Your task to perform on an android device: turn on sleep mode Image 0: 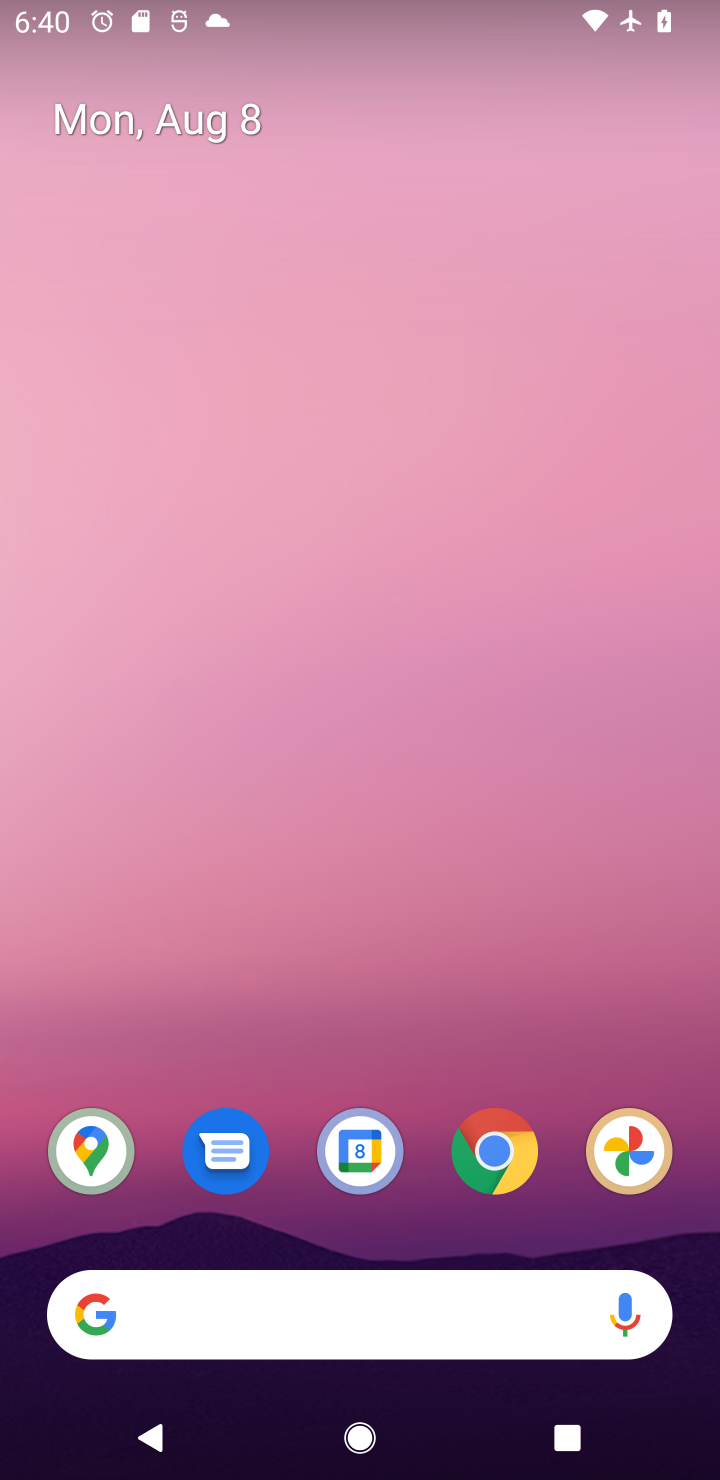
Step 0: drag from (385, 1020) to (424, 298)
Your task to perform on an android device: turn on sleep mode Image 1: 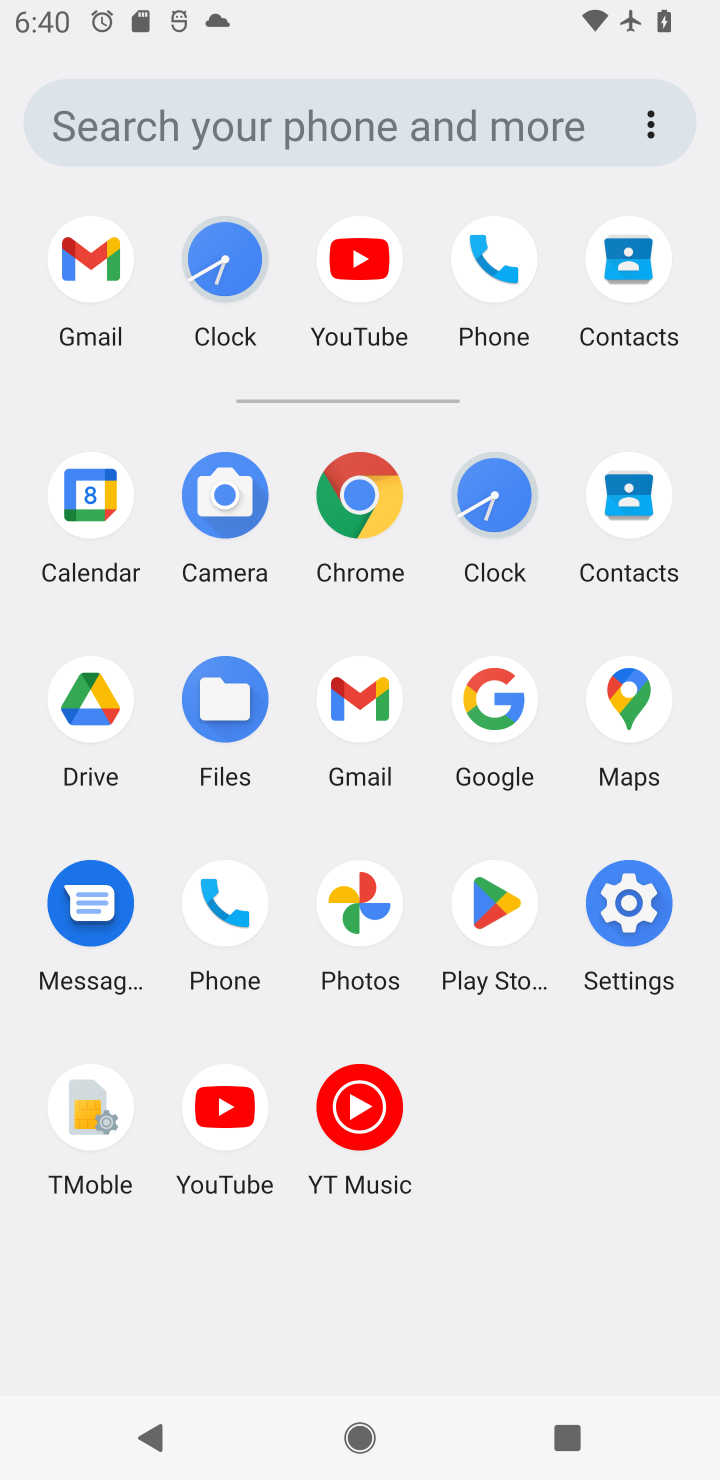
Step 1: click (609, 917)
Your task to perform on an android device: turn on sleep mode Image 2: 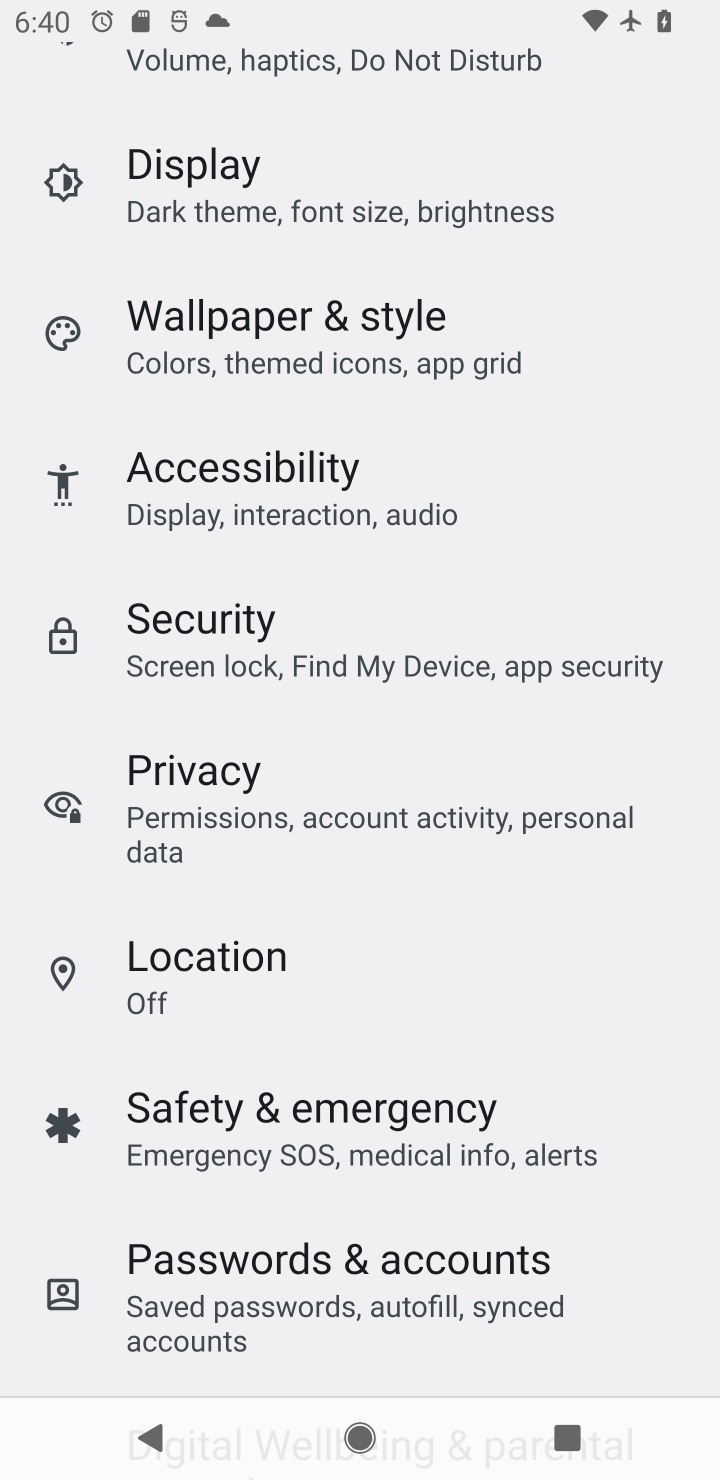
Step 2: drag from (331, 516) to (331, 1020)
Your task to perform on an android device: turn on sleep mode Image 3: 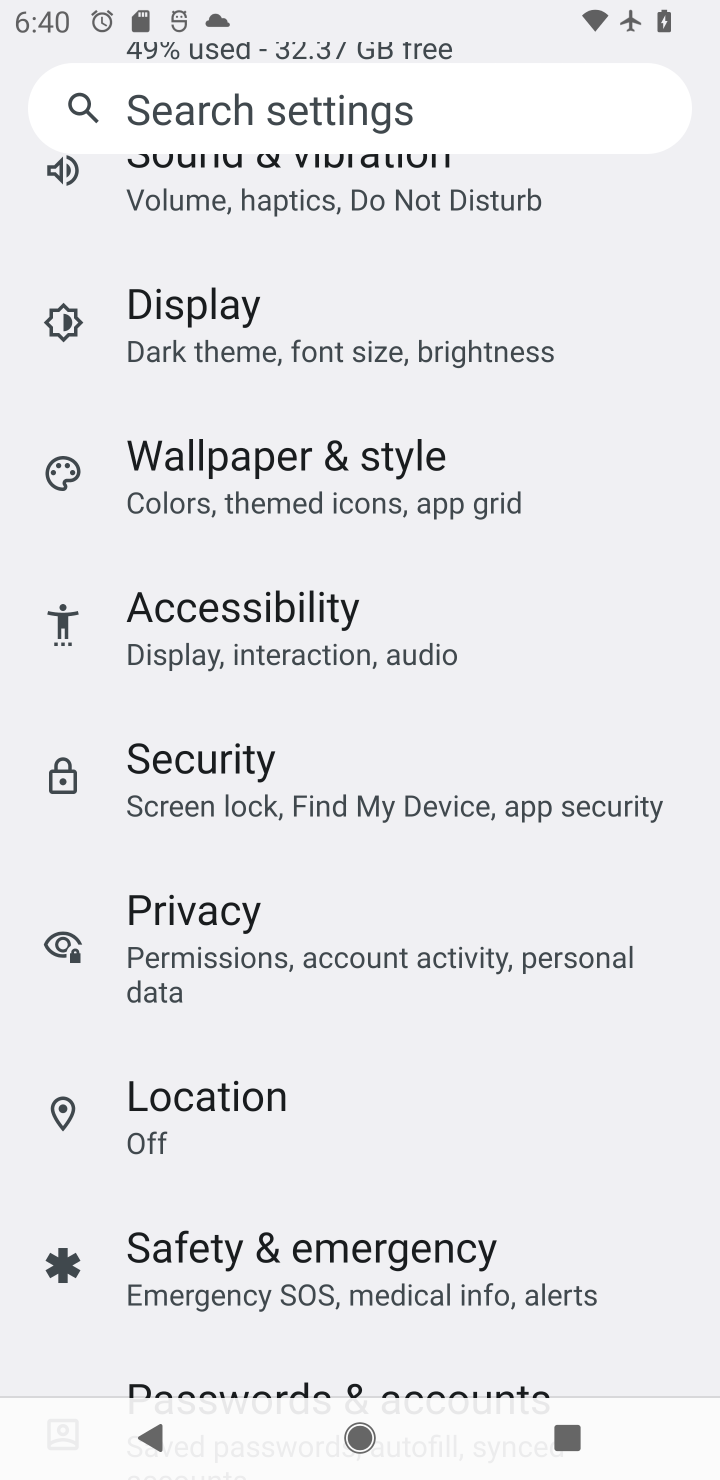
Step 3: click (269, 344)
Your task to perform on an android device: turn on sleep mode Image 4: 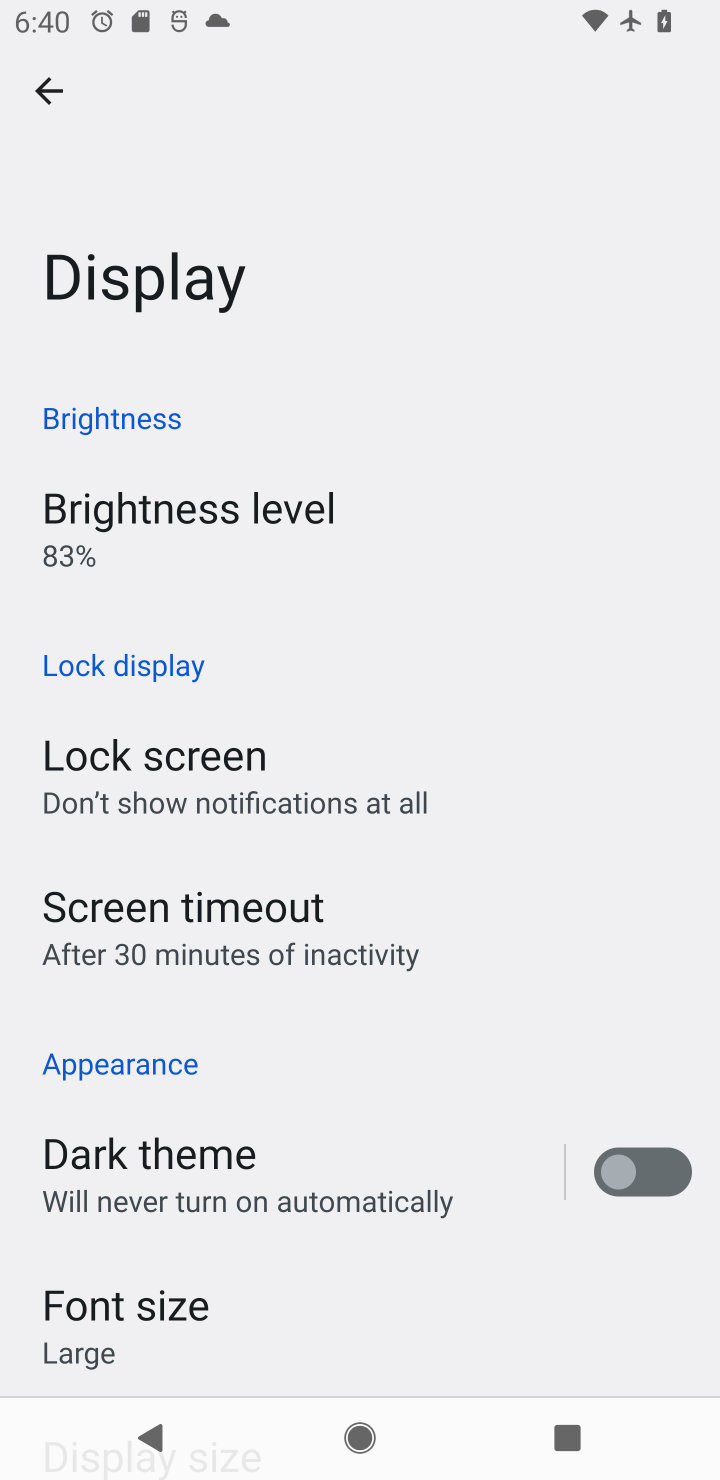
Step 4: drag from (297, 1199) to (348, 578)
Your task to perform on an android device: turn on sleep mode Image 5: 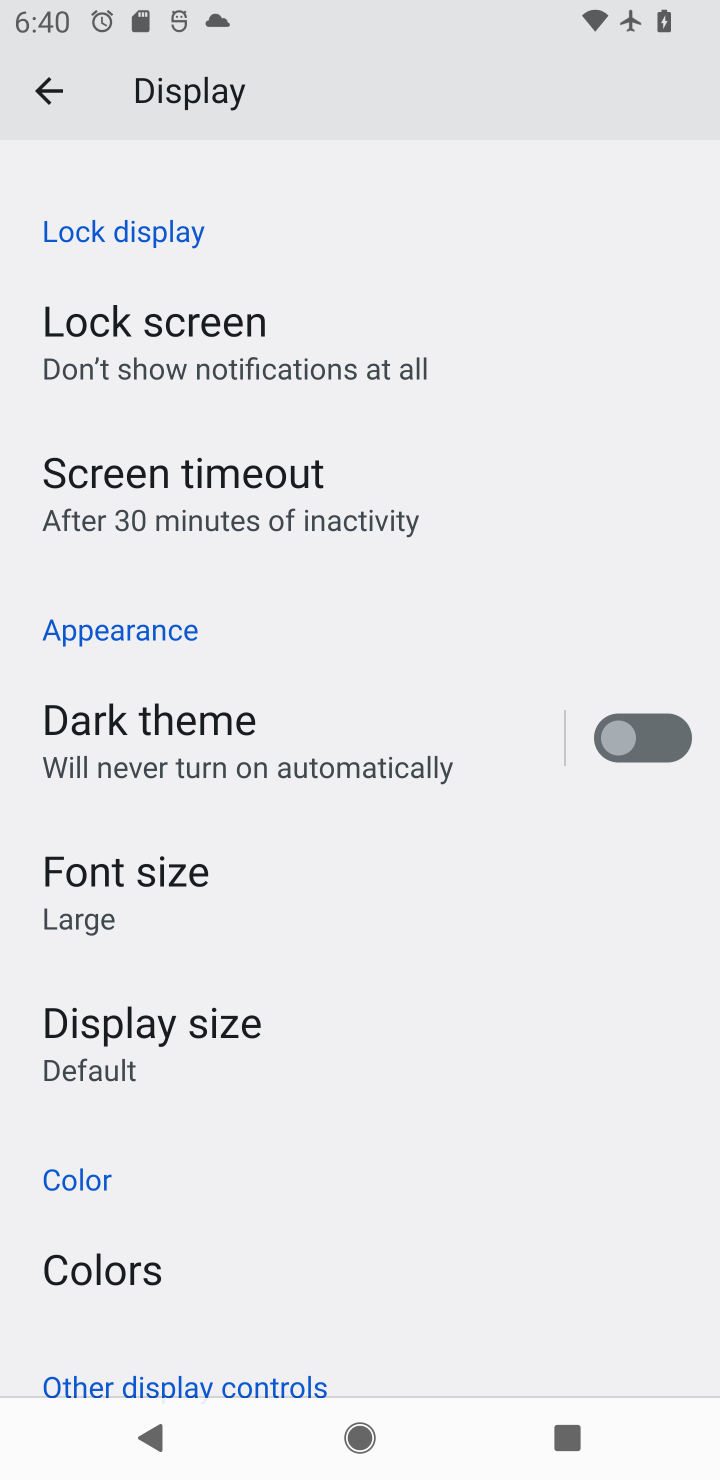
Step 5: click (235, 502)
Your task to perform on an android device: turn on sleep mode Image 6: 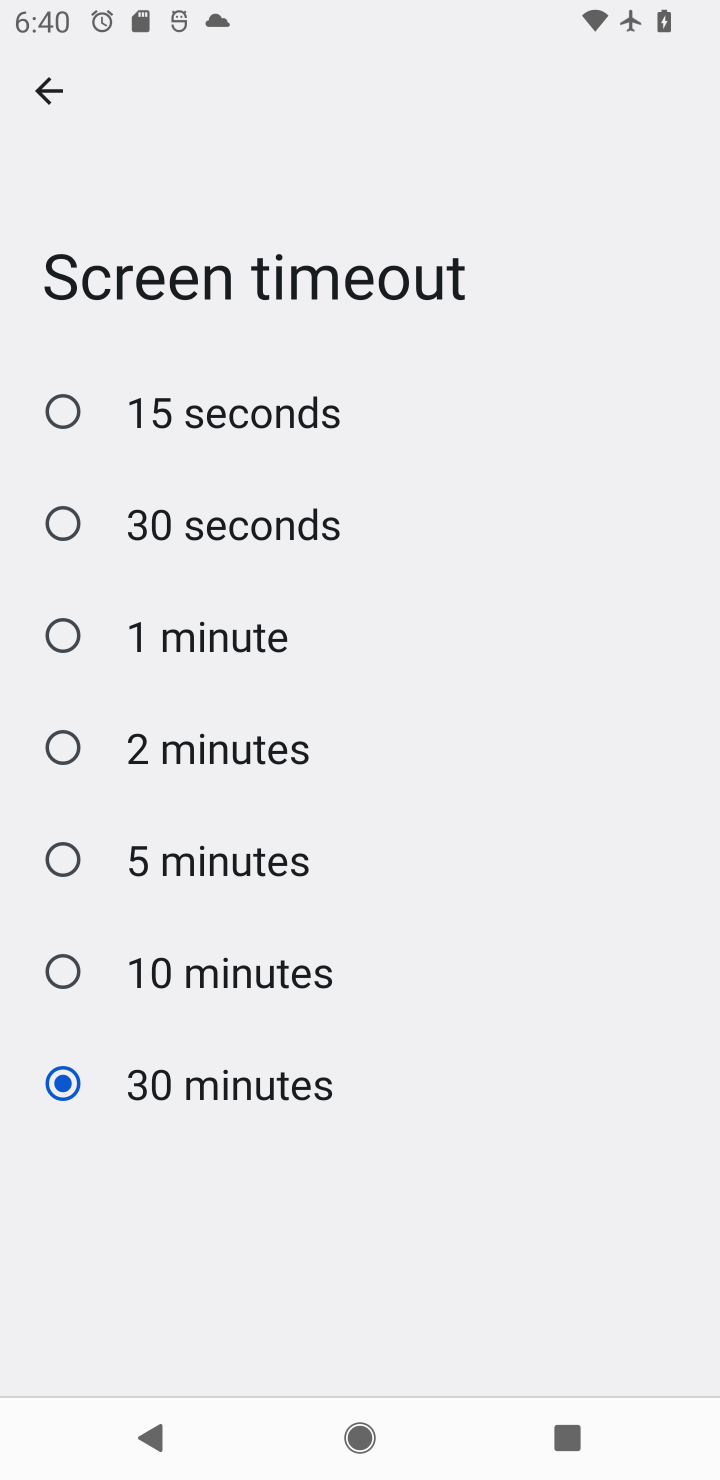
Step 6: click (119, 616)
Your task to perform on an android device: turn on sleep mode Image 7: 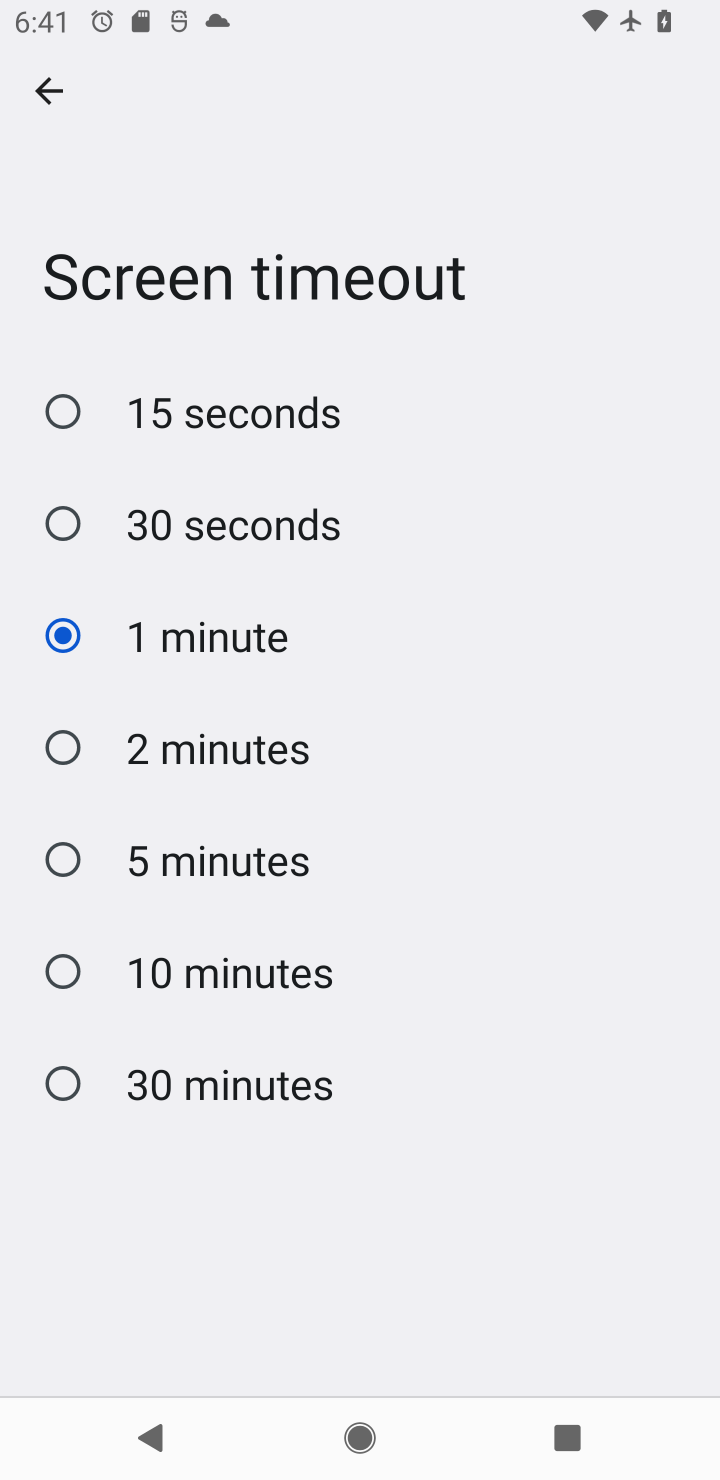
Step 7: task complete